Your task to perform on an android device: toggle sleep mode Image 0: 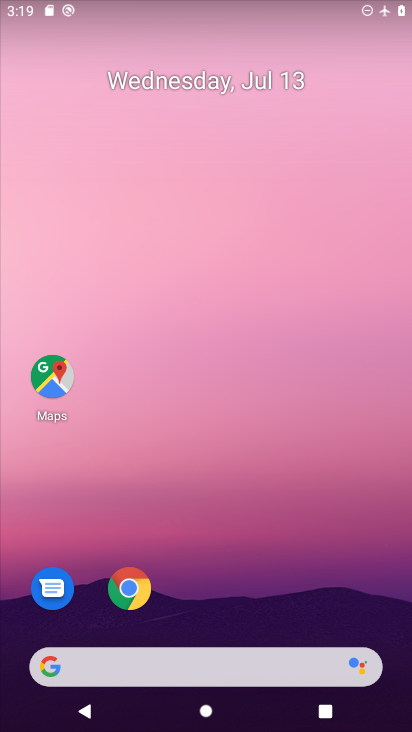
Step 0: drag from (220, 466) to (234, 154)
Your task to perform on an android device: toggle sleep mode Image 1: 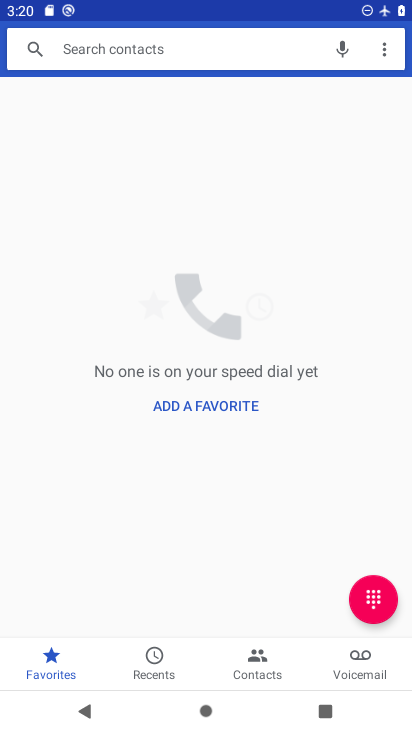
Step 1: press home button
Your task to perform on an android device: toggle sleep mode Image 2: 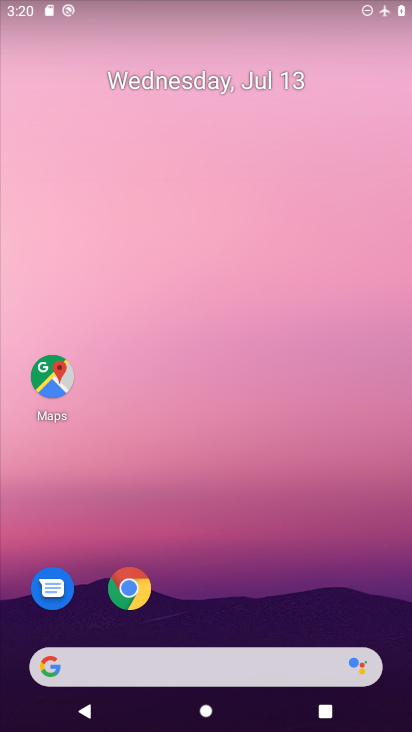
Step 2: drag from (227, 628) to (240, 119)
Your task to perform on an android device: toggle sleep mode Image 3: 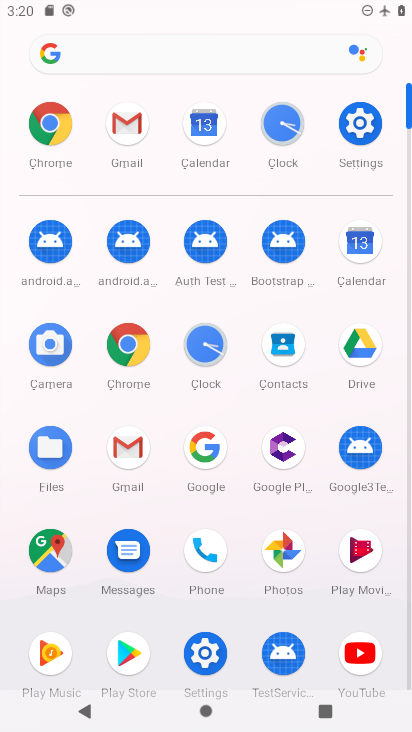
Step 3: click (365, 124)
Your task to perform on an android device: toggle sleep mode Image 4: 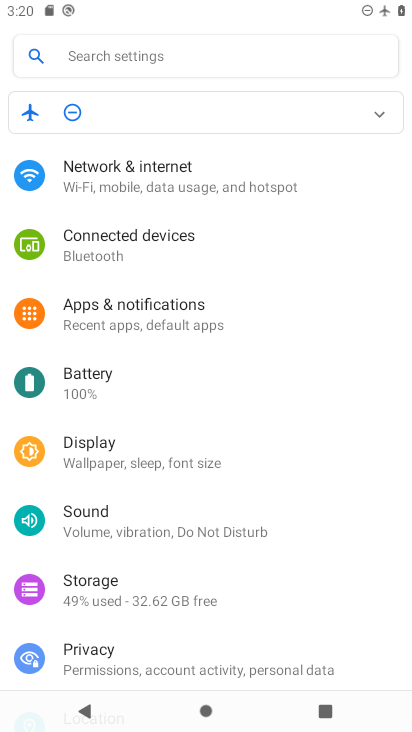
Step 4: click (88, 457)
Your task to perform on an android device: toggle sleep mode Image 5: 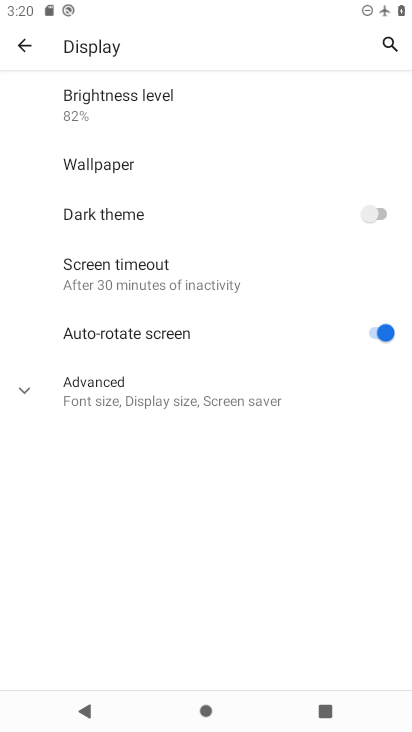
Step 5: click (107, 402)
Your task to perform on an android device: toggle sleep mode Image 6: 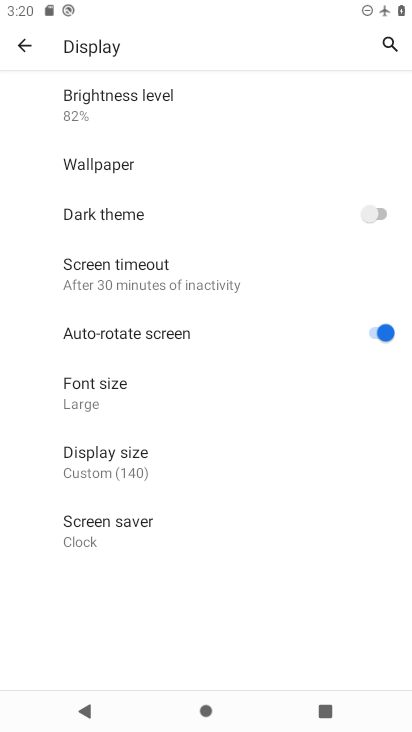
Step 6: task complete